Your task to perform on an android device: Open wifi settings Image 0: 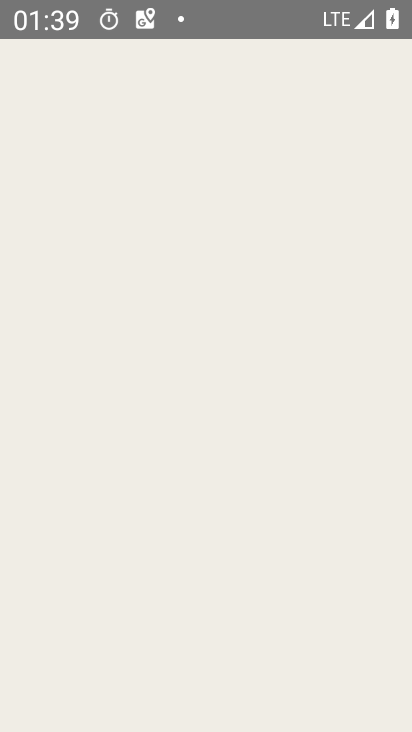
Step 0: press home button
Your task to perform on an android device: Open wifi settings Image 1: 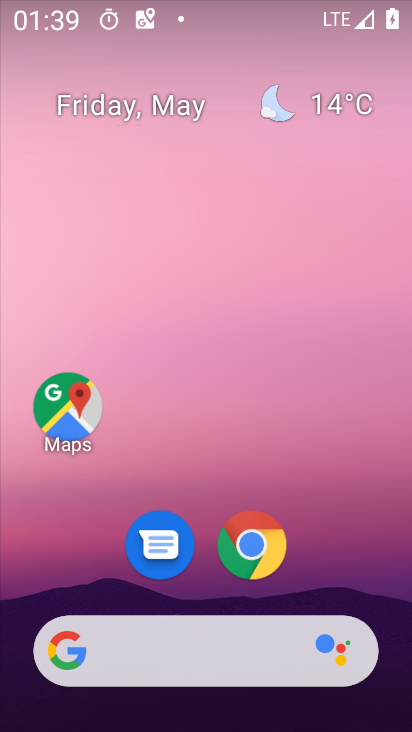
Step 1: click (259, 115)
Your task to perform on an android device: Open wifi settings Image 2: 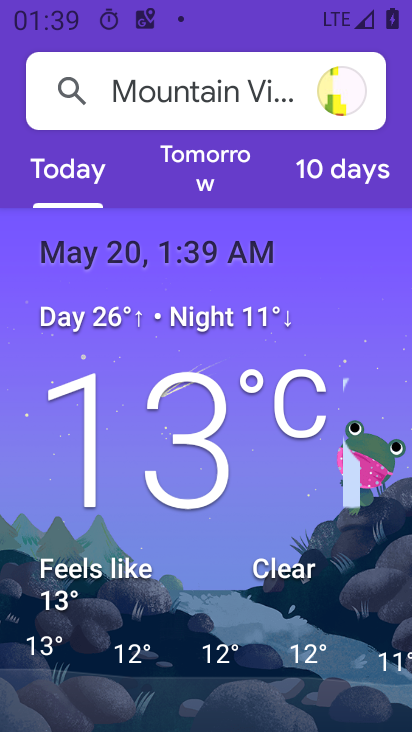
Step 2: press home button
Your task to perform on an android device: Open wifi settings Image 3: 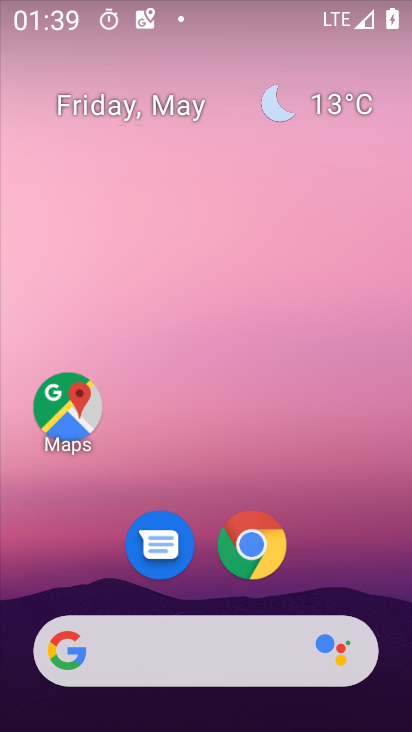
Step 3: drag from (290, 583) to (258, 196)
Your task to perform on an android device: Open wifi settings Image 4: 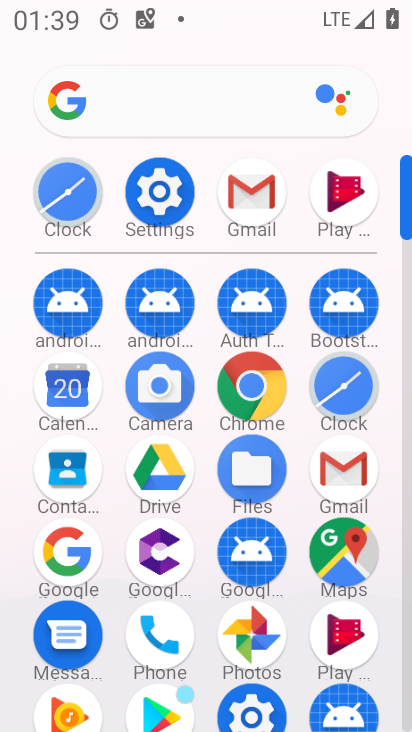
Step 4: drag from (284, 615) to (286, 399)
Your task to perform on an android device: Open wifi settings Image 5: 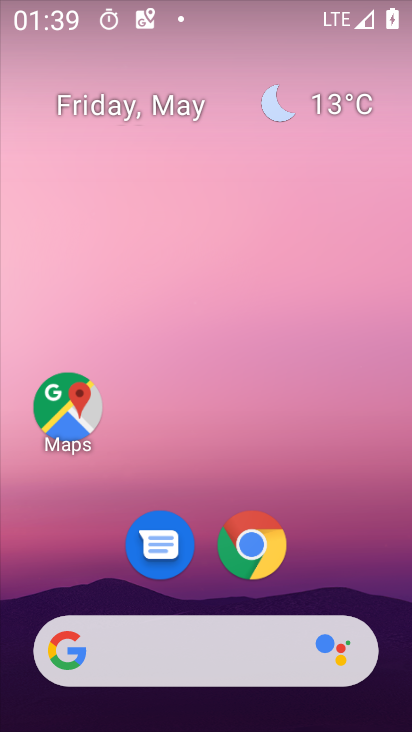
Step 5: drag from (311, 568) to (238, 169)
Your task to perform on an android device: Open wifi settings Image 6: 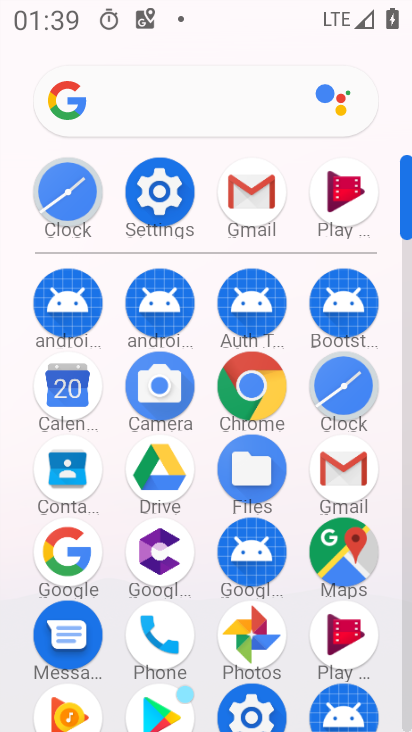
Step 6: click (163, 198)
Your task to perform on an android device: Open wifi settings Image 7: 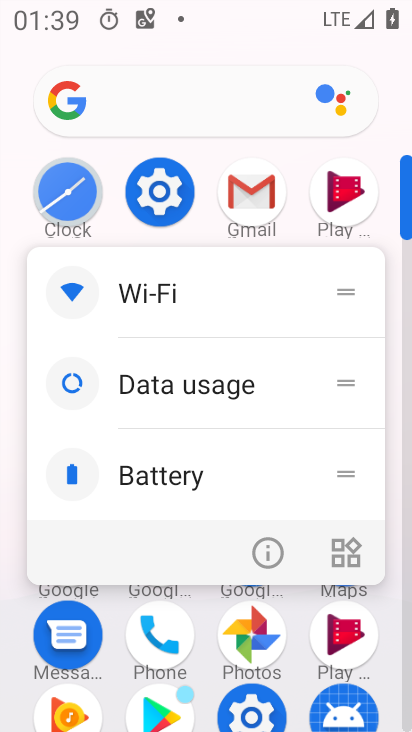
Step 7: click (157, 193)
Your task to perform on an android device: Open wifi settings Image 8: 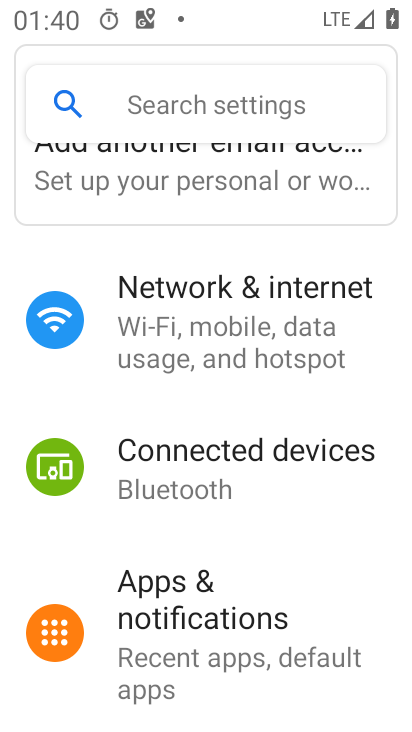
Step 8: click (210, 350)
Your task to perform on an android device: Open wifi settings Image 9: 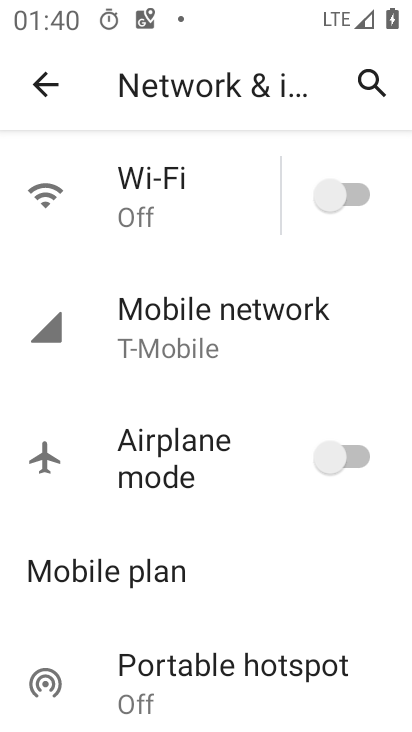
Step 9: click (190, 164)
Your task to perform on an android device: Open wifi settings Image 10: 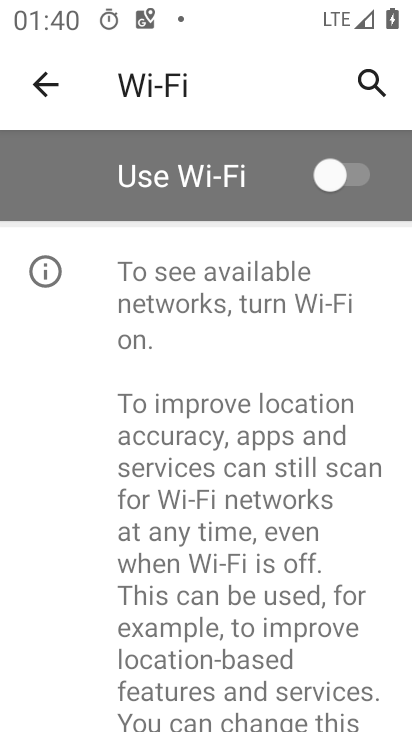
Step 10: task complete